Your task to perform on an android device: Open internet settings Image 0: 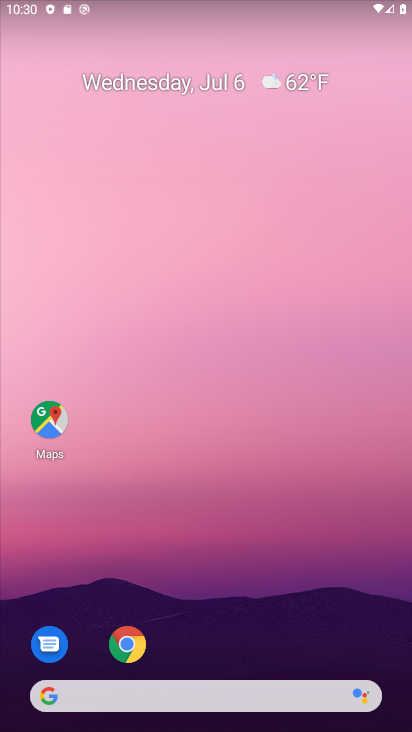
Step 0: press home button
Your task to perform on an android device: Open internet settings Image 1: 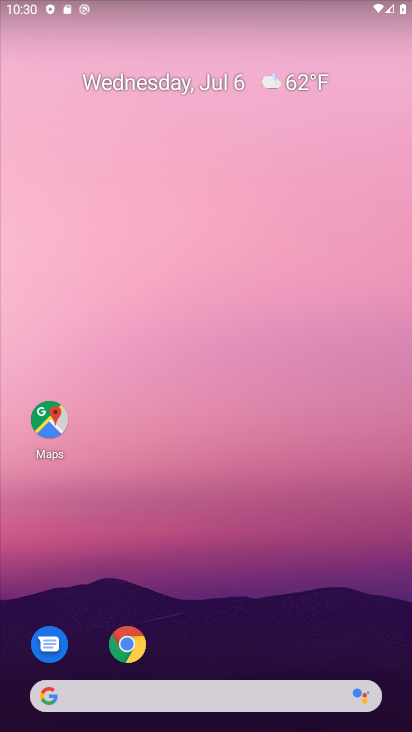
Step 1: drag from (245, 674) to (221, 124)
Your task to perform on an android device: Open internet settings Image 2: 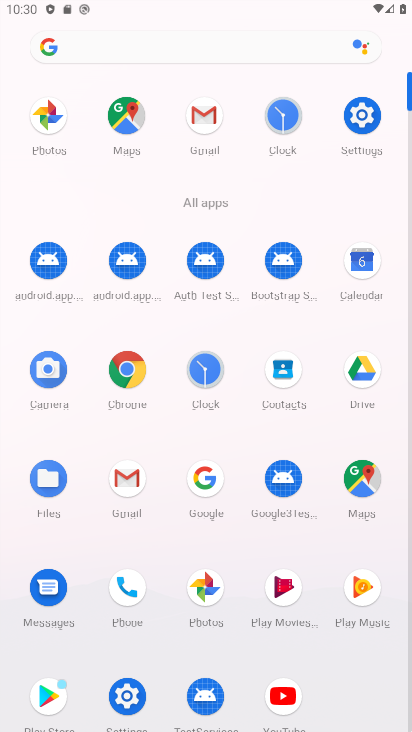
Step 2: click (364, 131)
Your task to perform on an android device: Open internet settings Image 3: 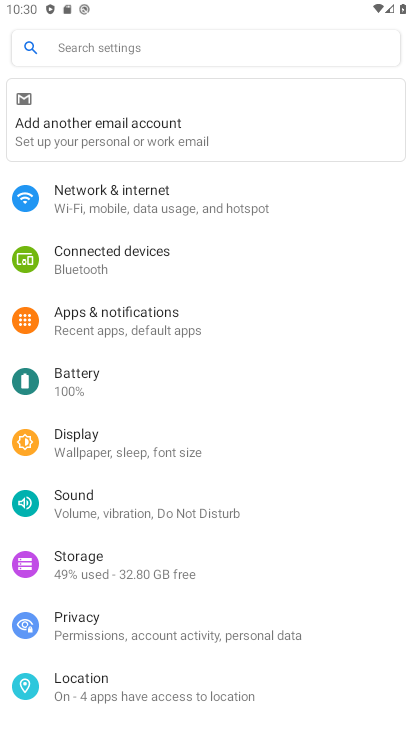
Step 3: click (111, 209)
Your task to perform on an android device: Open internet settings Image 4: 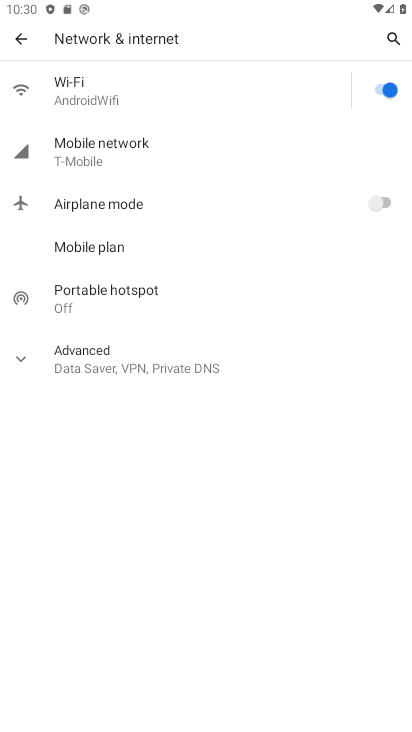
Step 4: task complete